Your task to perform on an android device: Open Google Maps Image 0: 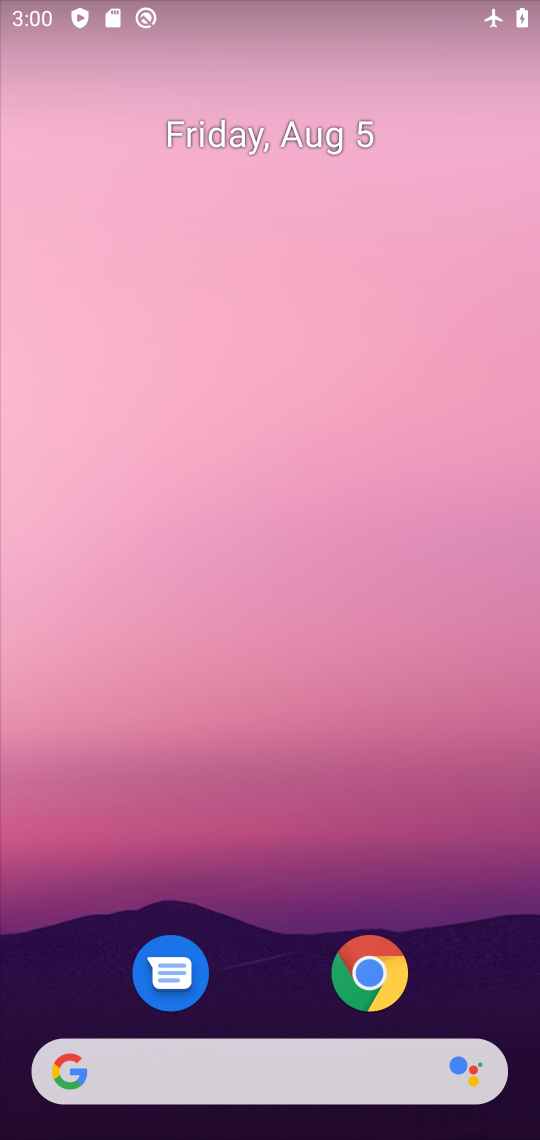
Step 0: drag from (254, 935) to (138, 145)
Your task to perform on an android device: Open Google Maps Image 1: 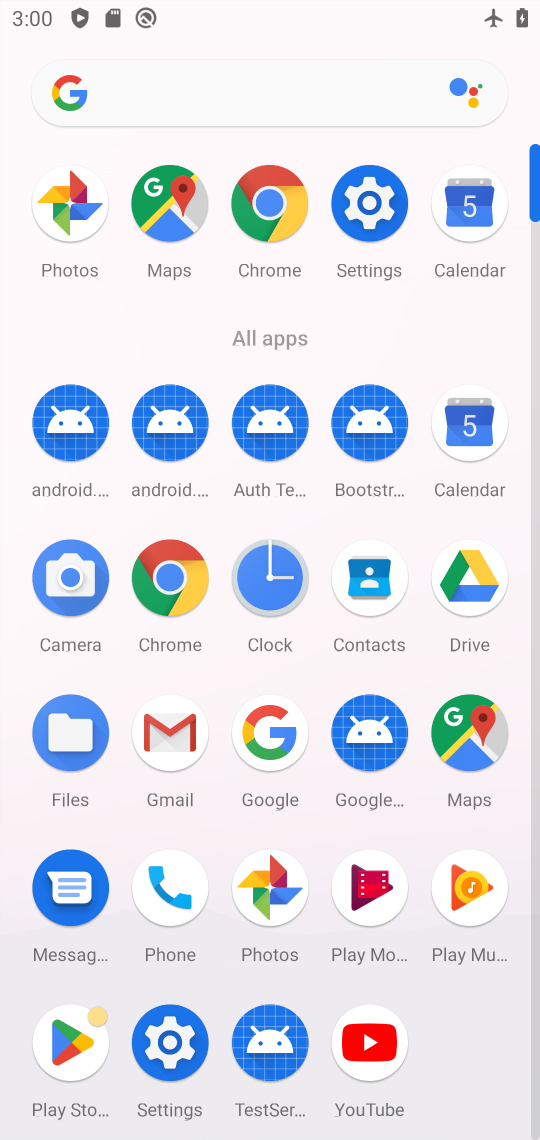
Step 1: click (476, 758)
Your task to perform on an android device: Open Google Maps Image 2: 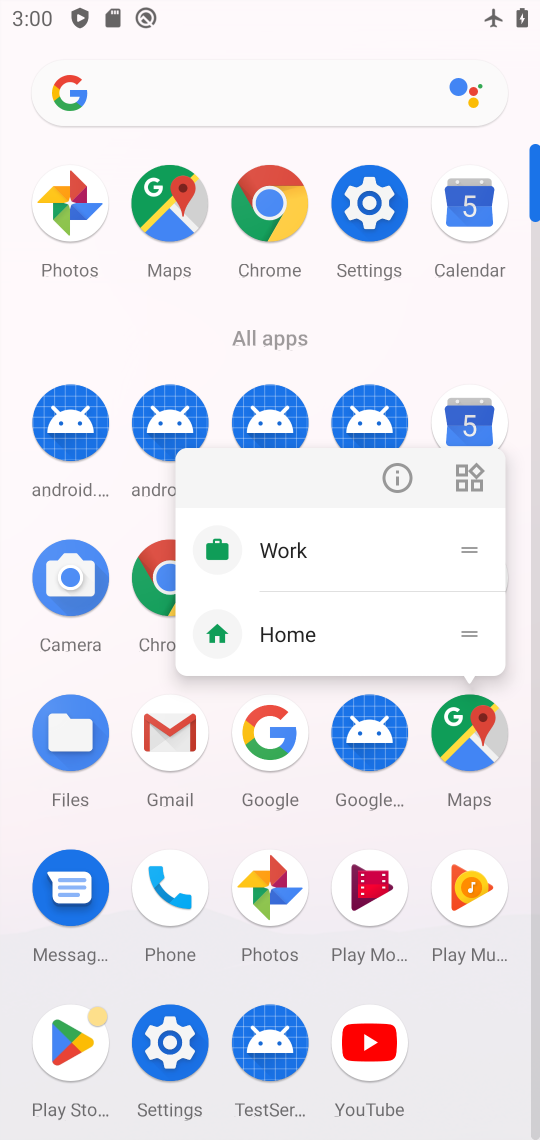
Step 2: click (481, 743)
Your task to perform on an android device: Open Google Maps Image 3: 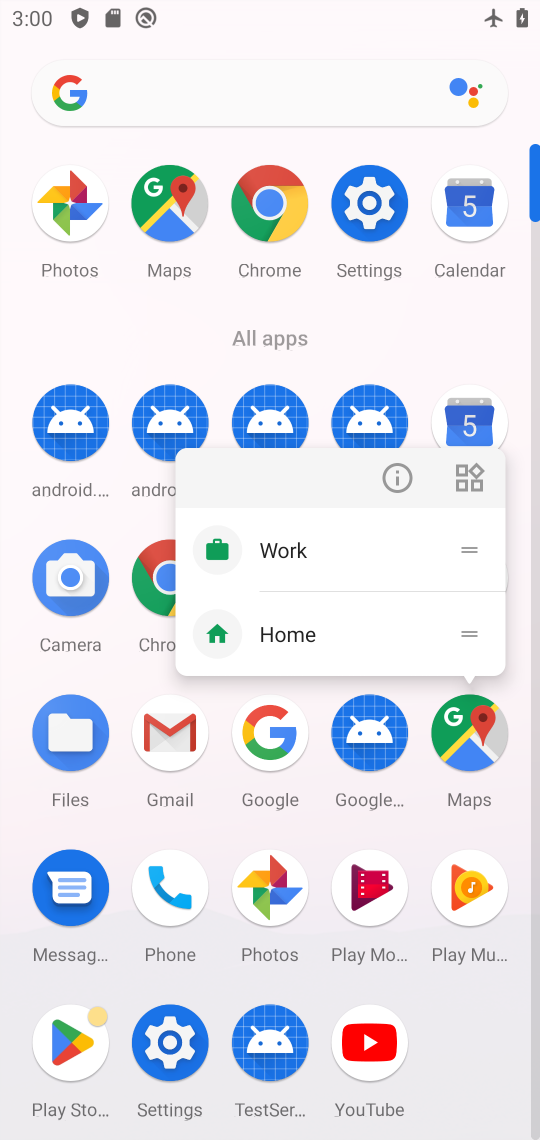
Step 3: click (480, 741)
Your task to perform on an android device: Open Google Maps Image 4: 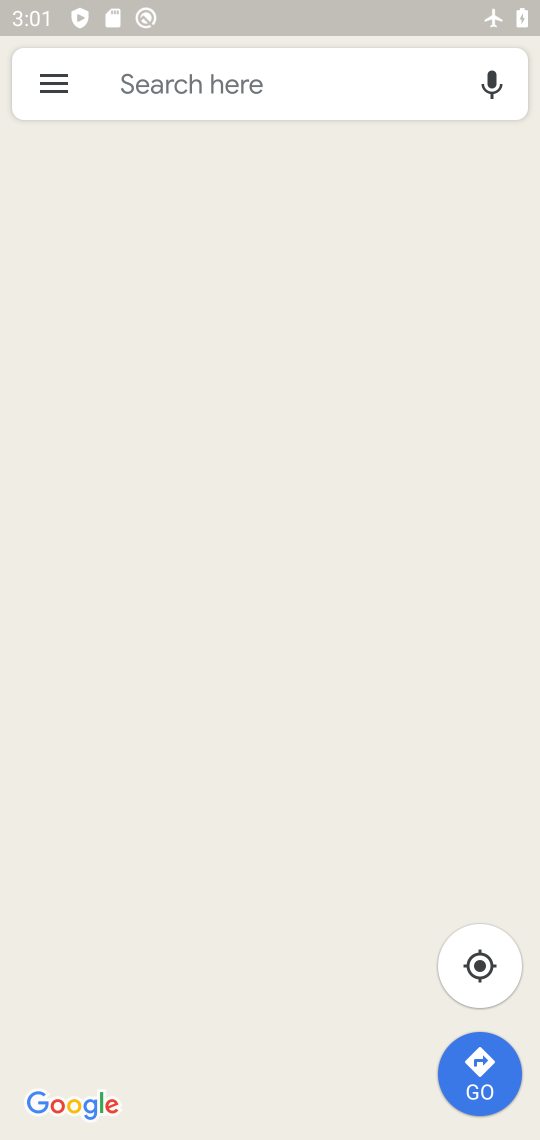
Step 4: task complete